Your task to perform on an android device: turn off wifi Image 0: 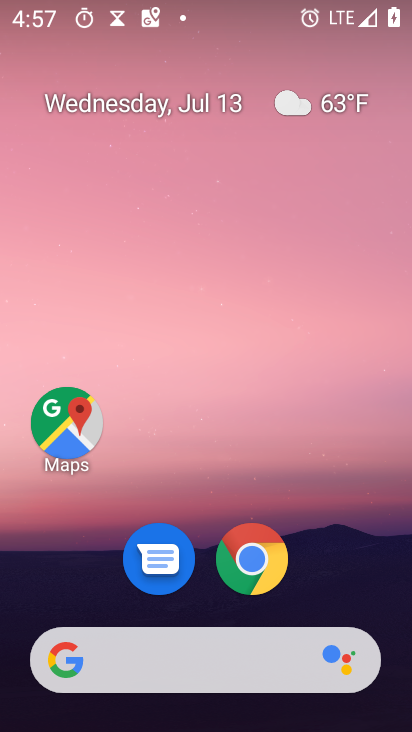
Step 0: drag from (402, 581) to (298, 173)
Your task to perform on an android device: turn off wifi Image 1: 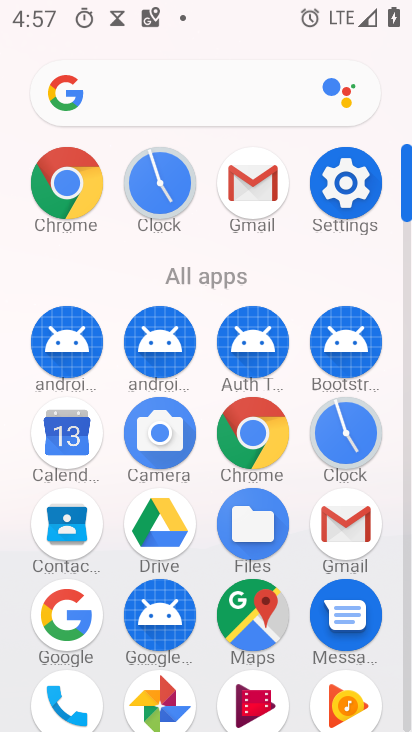
Step 1: click (342, 192)
Your task to perform on an android device: turn off wifi Image 2: 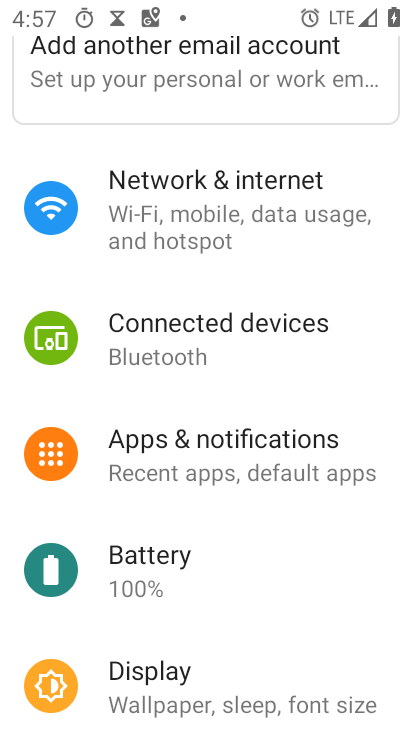
Step 2: click (296, 215)
Your task to perform on an android device: turn off wifi Image 3: 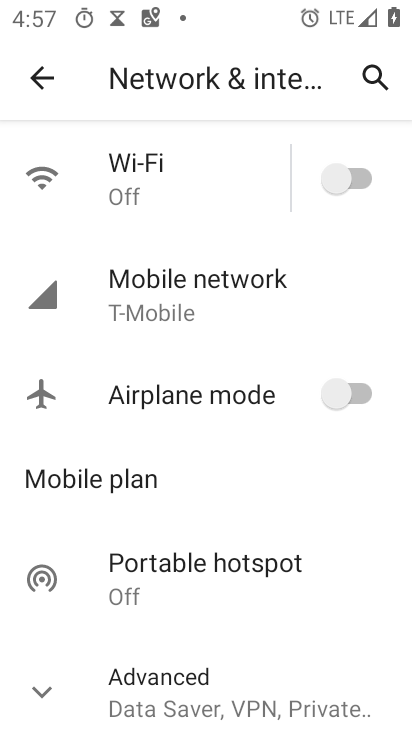
Step 3: task complete